Your task to perform on an android device: Show me popular videos on Youtube Image 0: 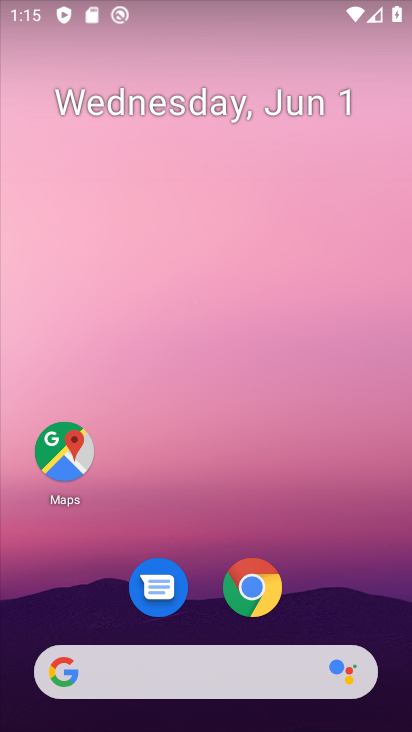
Step 0: drag from (393, 639) to (356, 52)
Your task to perform on an android device: Show me popular videos on Youtube Image 1: 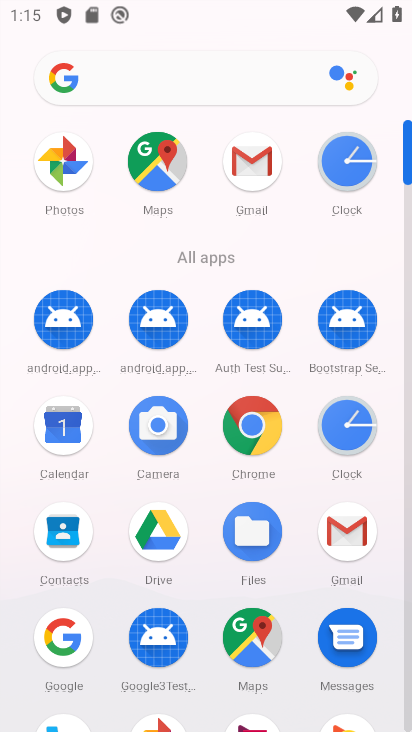
Step 1: click (409, 677)
Your task to perform on an android device: Show me popular videos on Youtube Image 2: 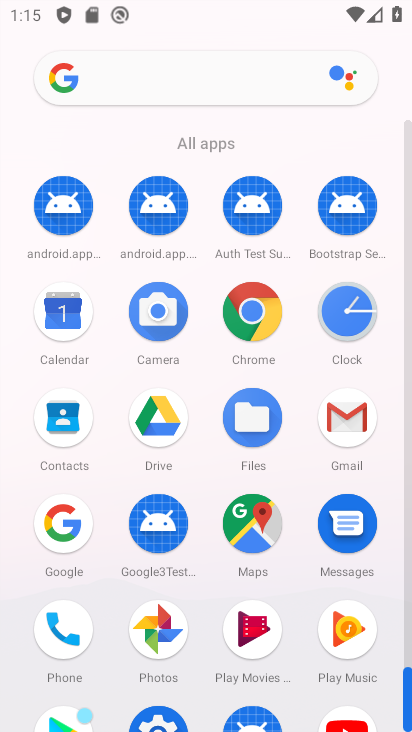
Step 2: drag from (407, 648) to (398, 560)
Your task to perform on an android device: Show me popular videos on Youtube Image 3: 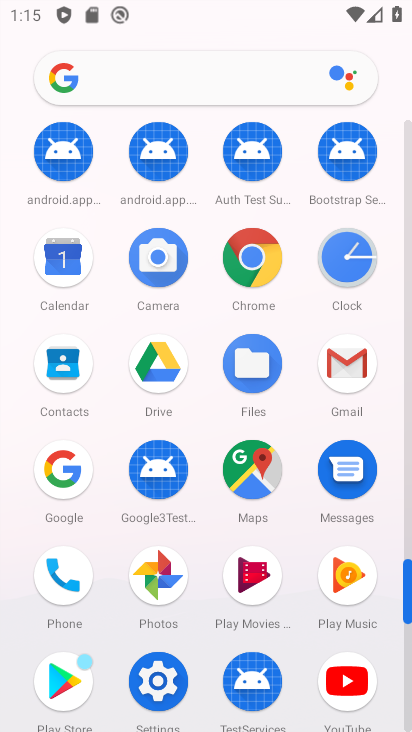
Step 3: click (350, 672)
Your task to perform on an android device: Show me popular videos on Youtube Image 4: 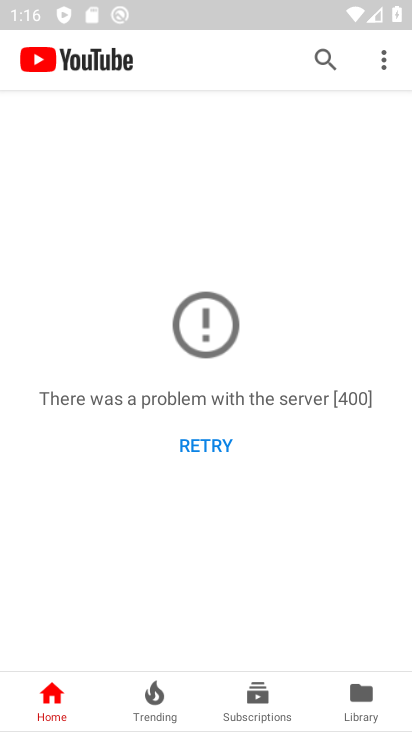
Step 4: click (165, 700)
Your task to perform on an android device: Show me popular videos on Youtube Image 5: 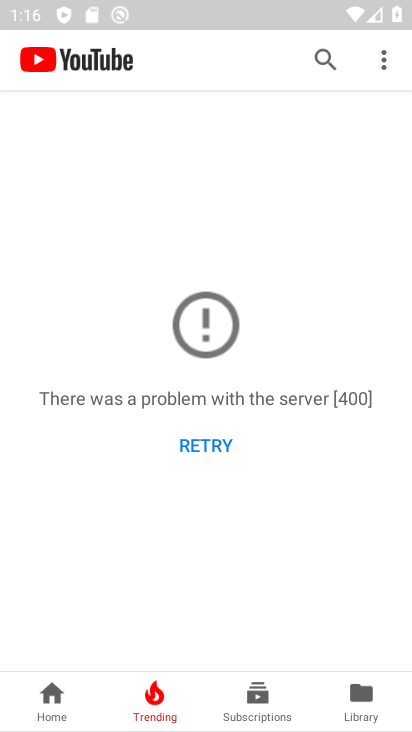
Step 5: task complete